Your task to perform on an android device: Open Google Chrome Image 0: 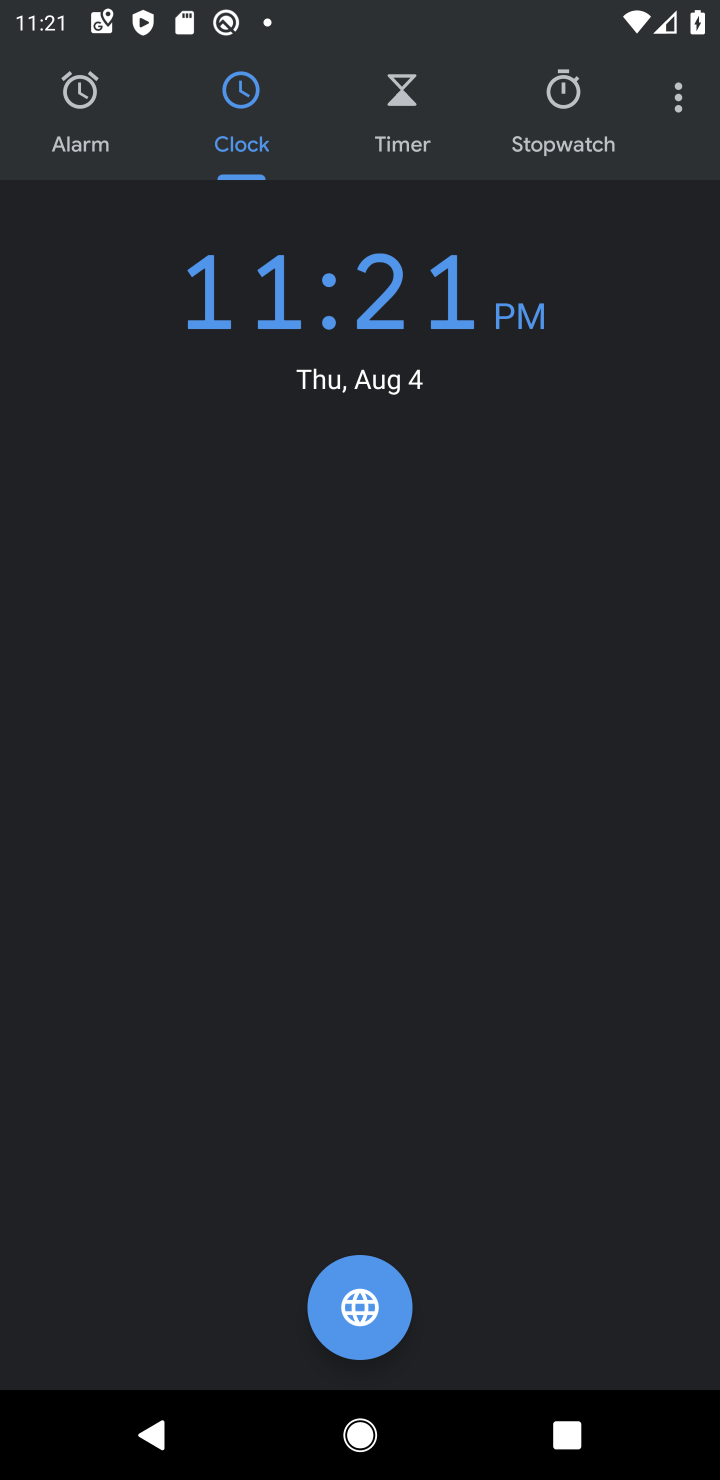
Step 0: press home button
Your task to perform on an android device: Open Google Chrome Image 1: 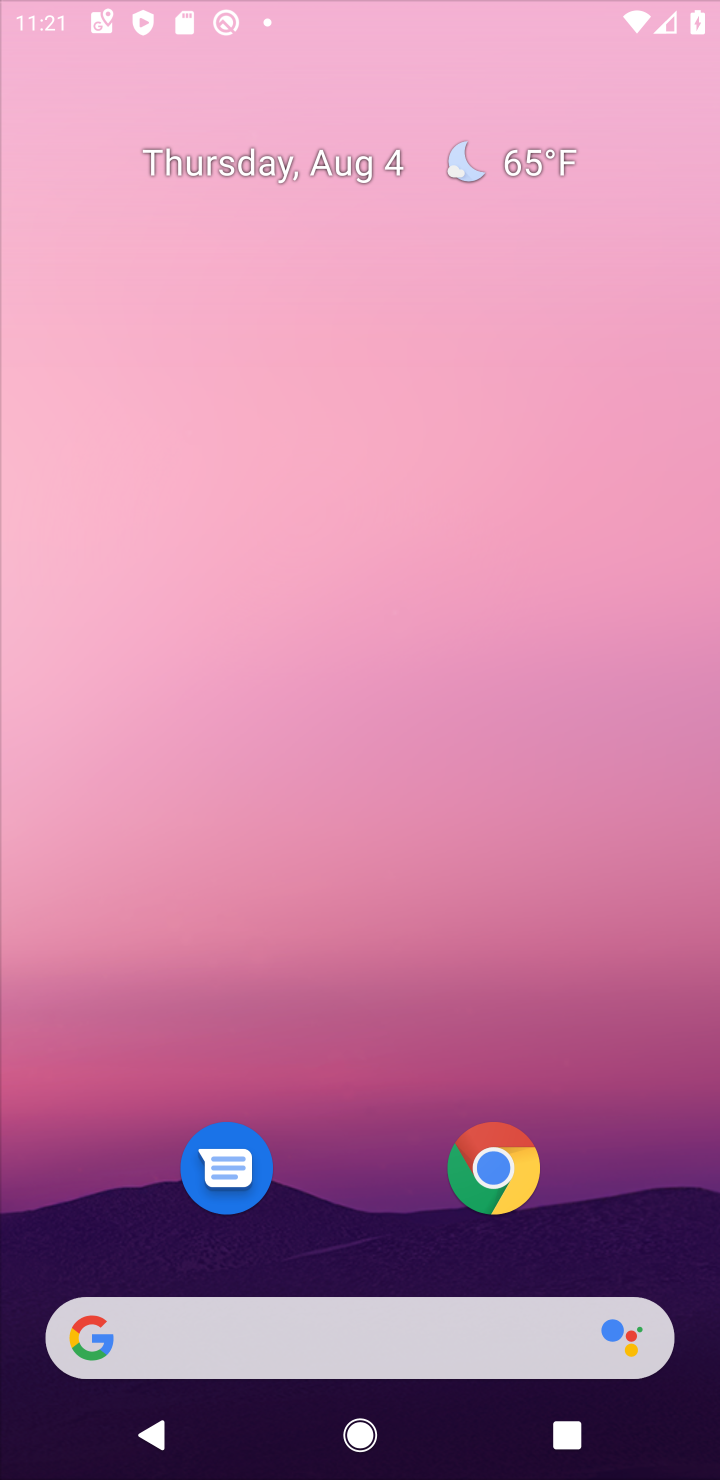
Step 1: drag from (622, 1175) to (354, 88)
Your task to perform on an android device: Open Google Chrome Image 2: 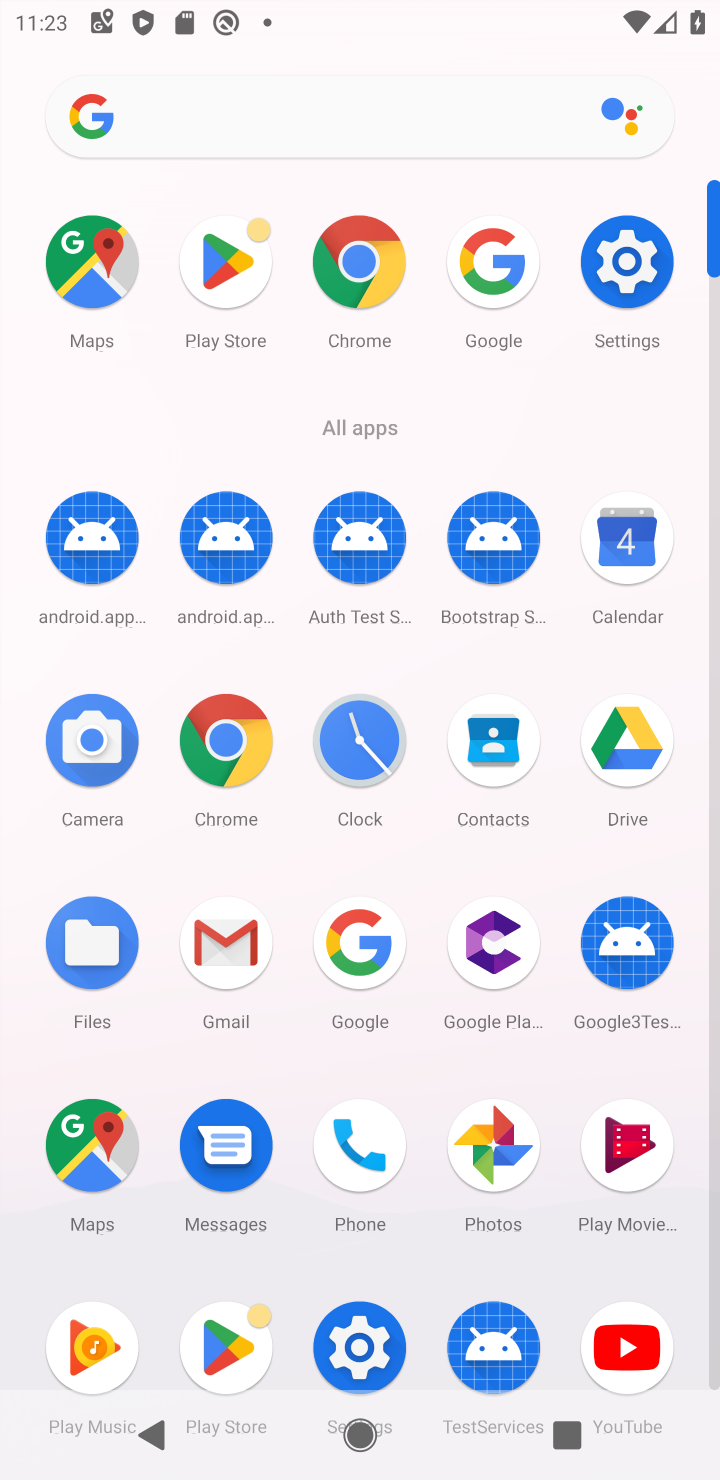
Step 2: click (235, 743)
Your task to perform on an android device: Open Google Chrome Image 3: 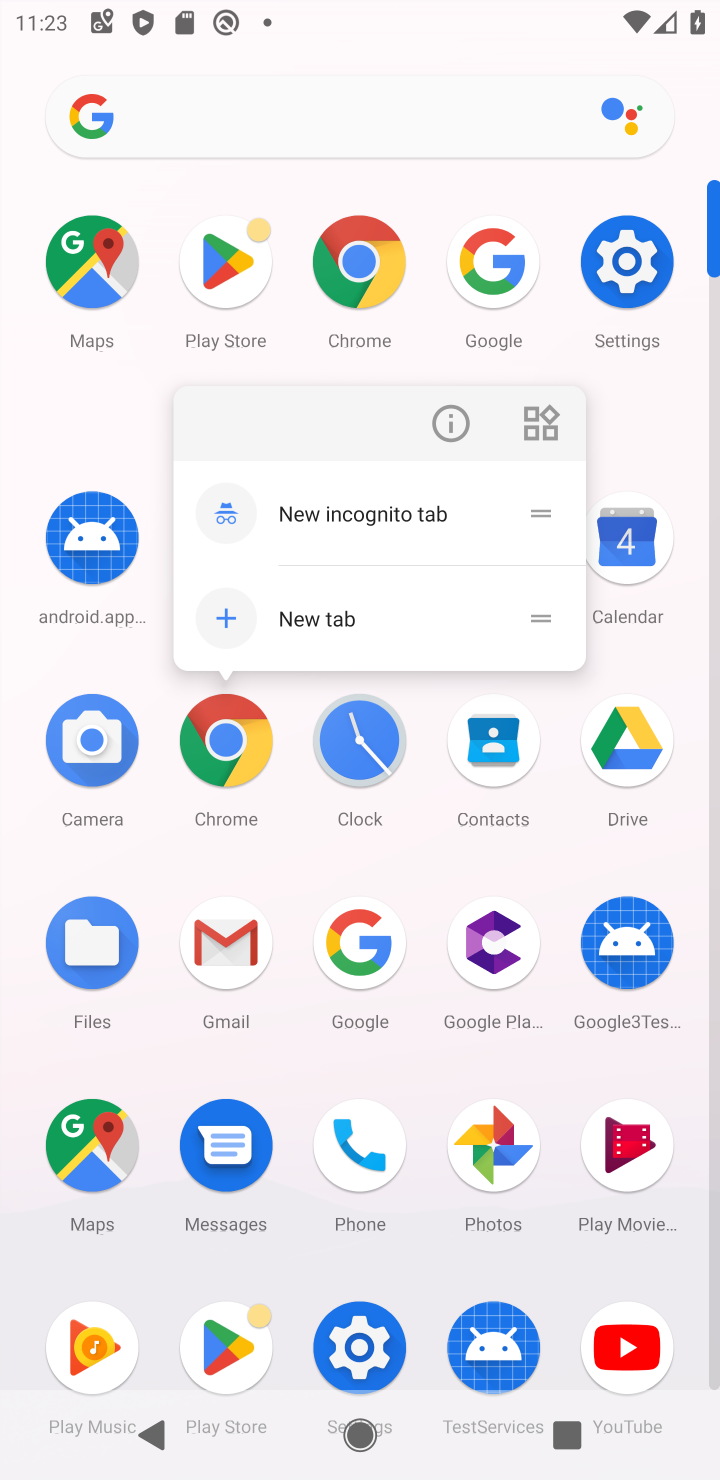
Step 3: click (121, 743)
Your task to perform on an android device: Open Google Chrome Image 4: 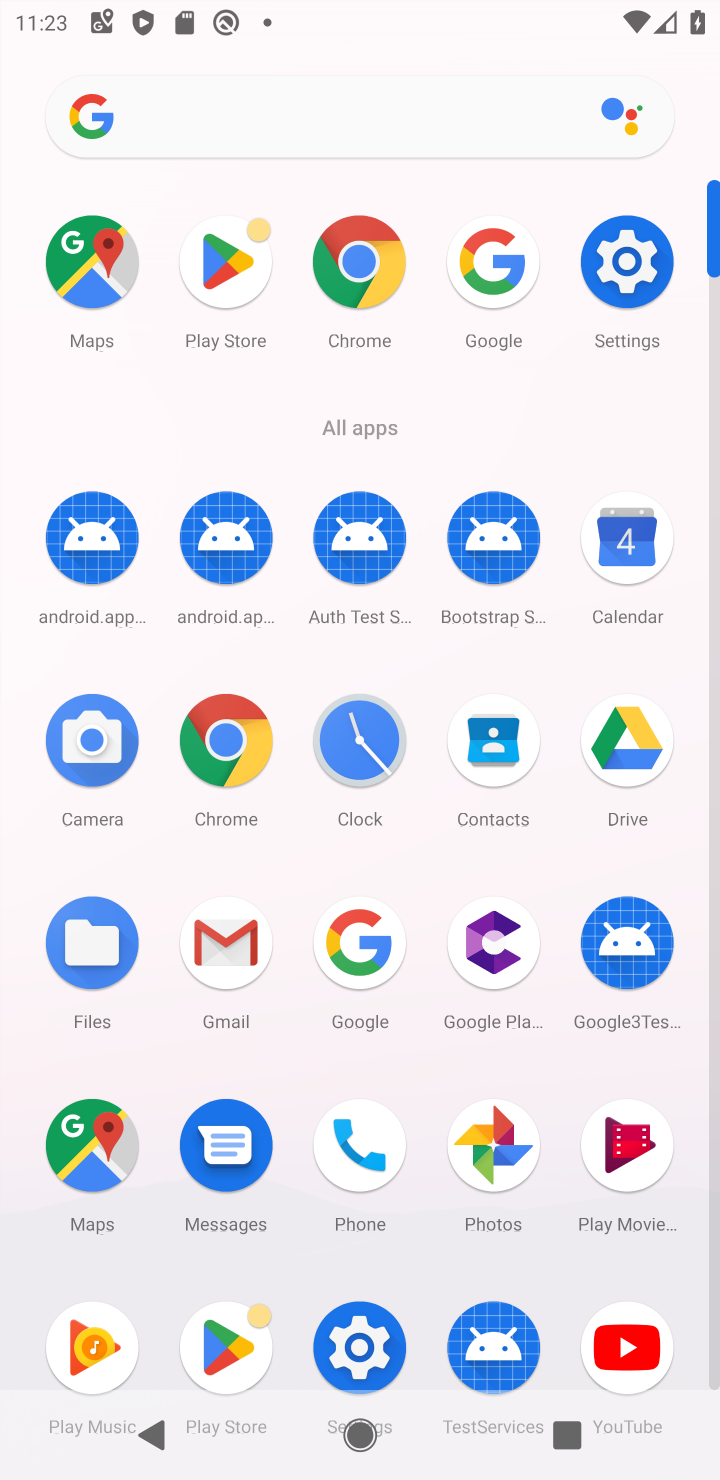
Step 4: click (239, 759)
Your task to perform on an android device: Open Google Chrome Image 5: 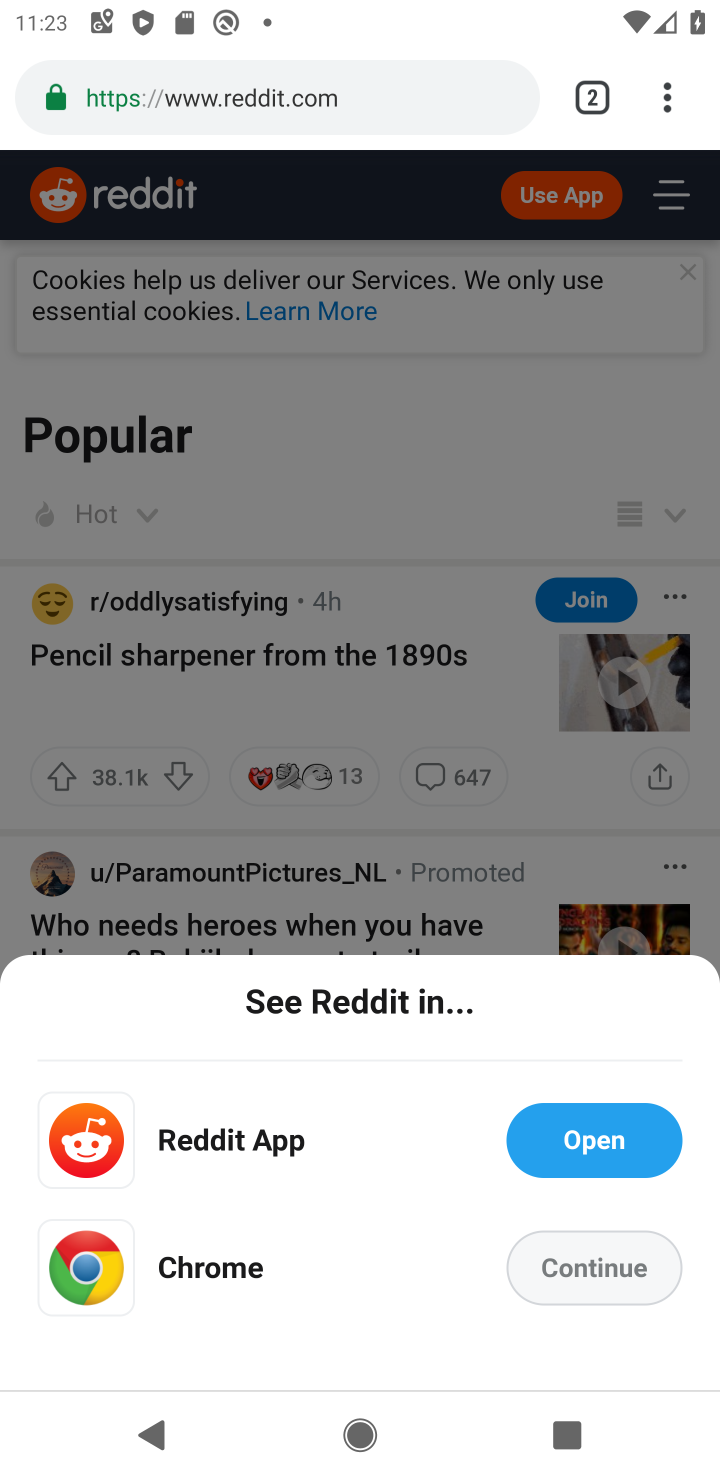
Step 5: press back button
Your task to perform on an android device: Open Google Chrome Image 6: 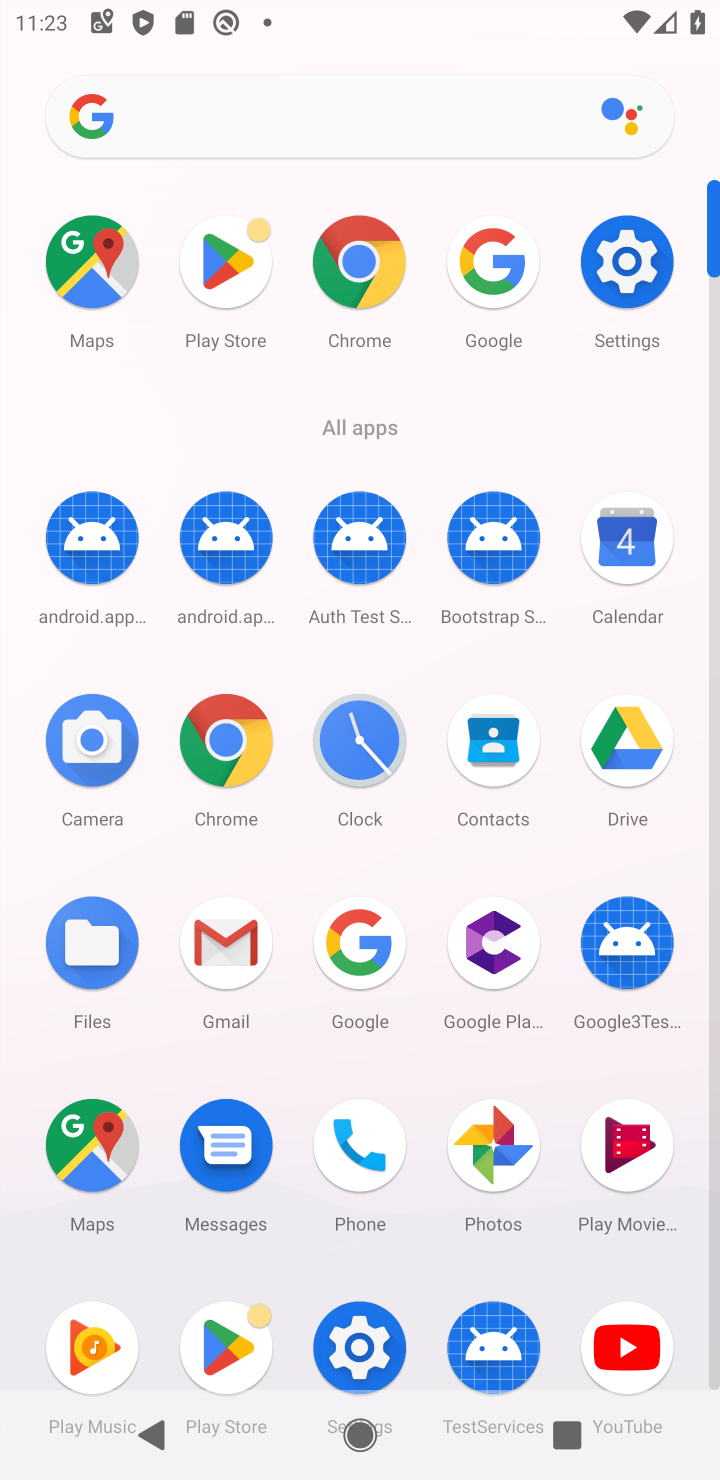
Step 6: click (195, 738)
Your task to perform on an android device: Open Google Chrome Image 7: 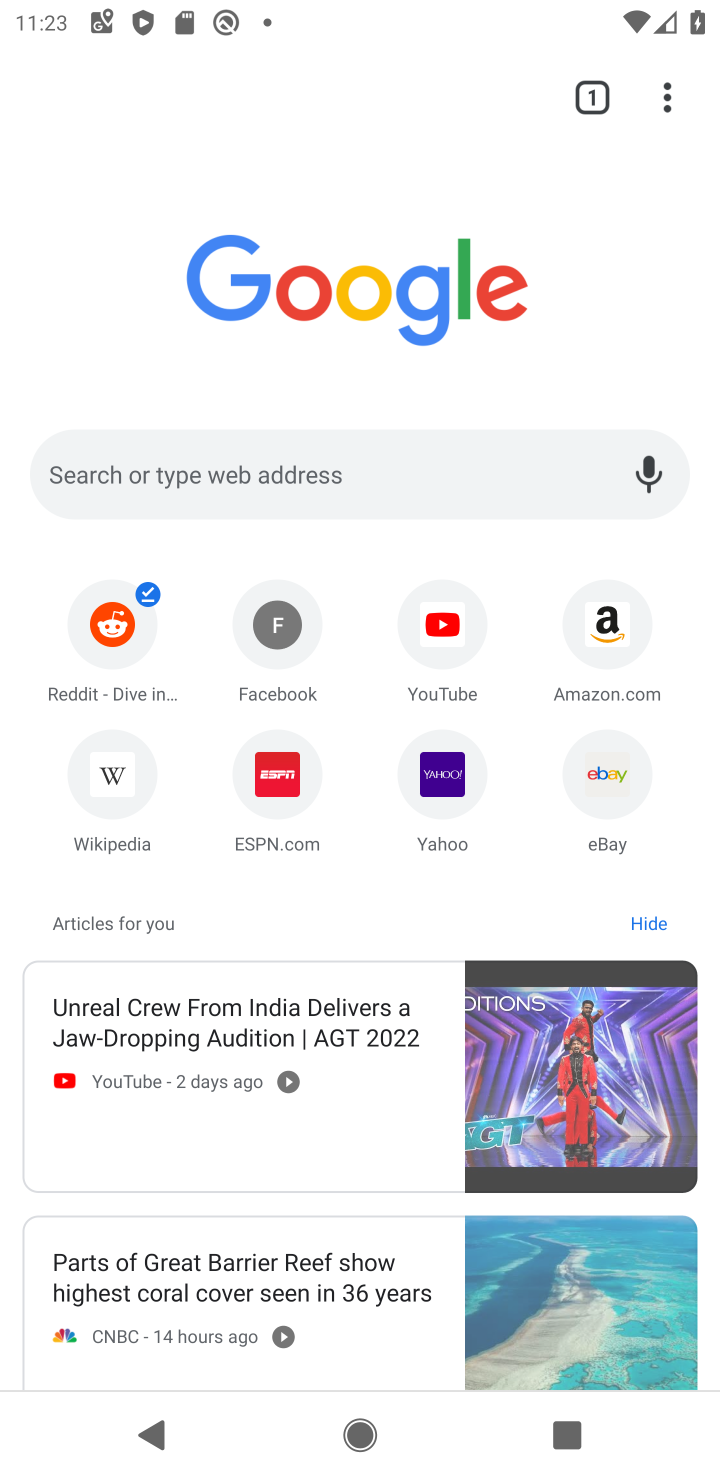
Step 7: task complete